Your task to perform on an android device: turn off javascript in the chrome app Image 0: 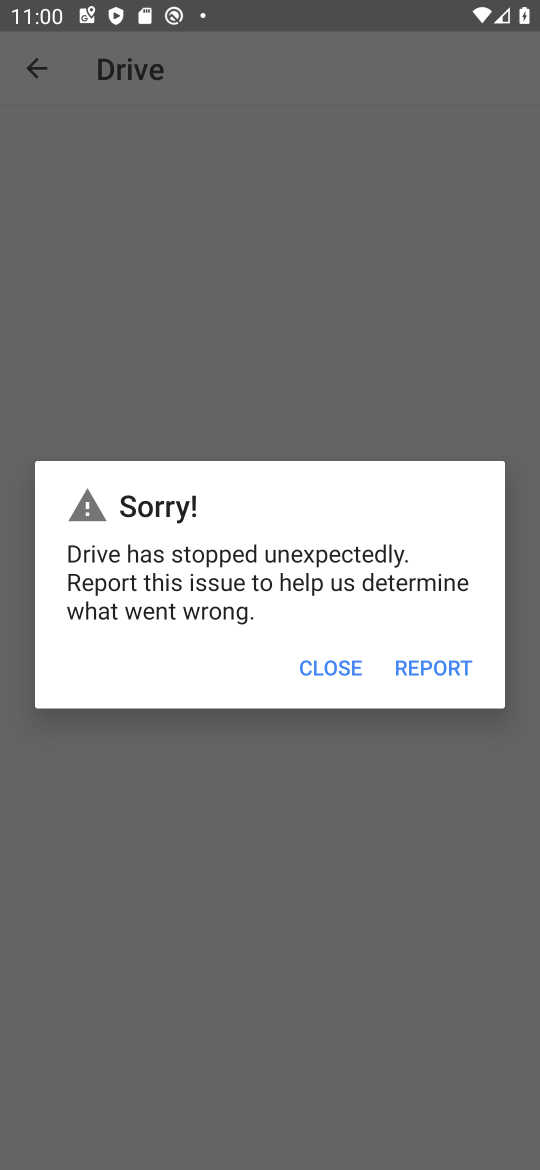
Step 0: press back button
Your task to perform on an android device: turn off javascript in the chrome app Image 1: 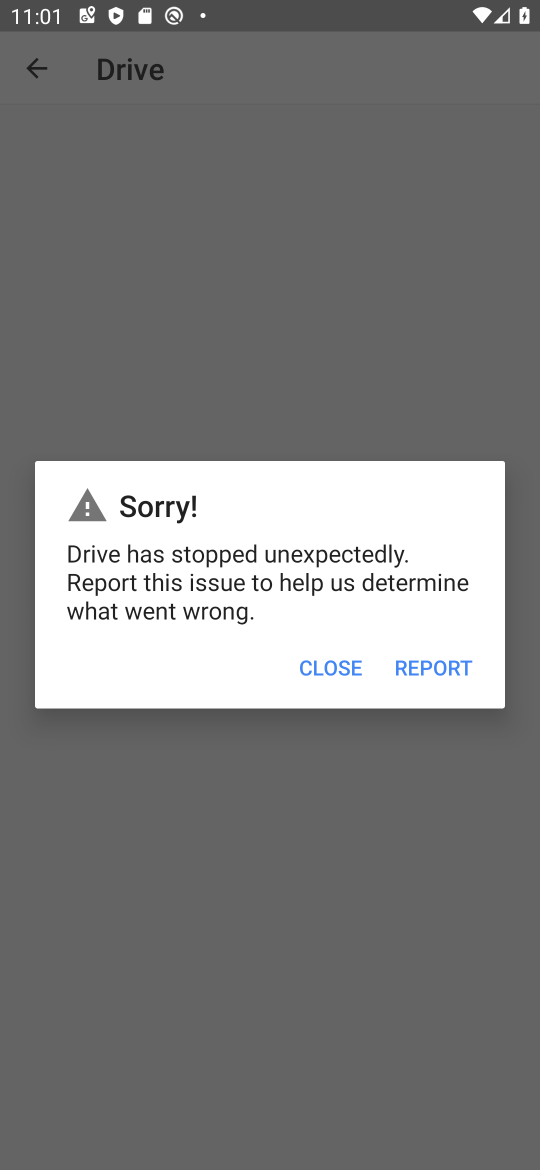
Step 1: press back button
Your task to perform on an android device: turn off javascript in the chrome app Image 2: 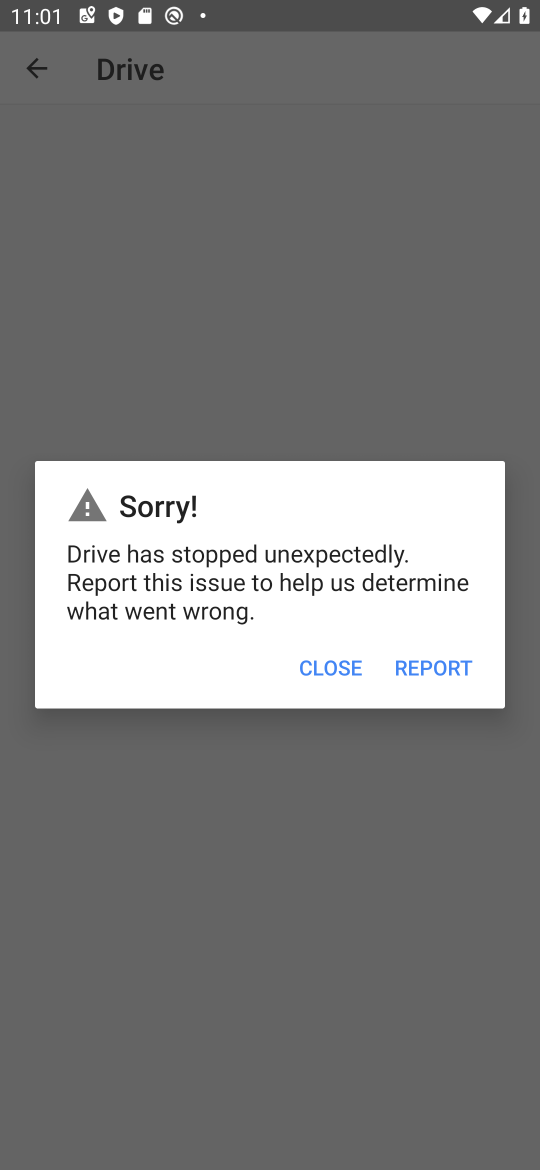
Step 2: press home button
Your task to perform on an android device: turn off javascript in the chrome app Image 3: 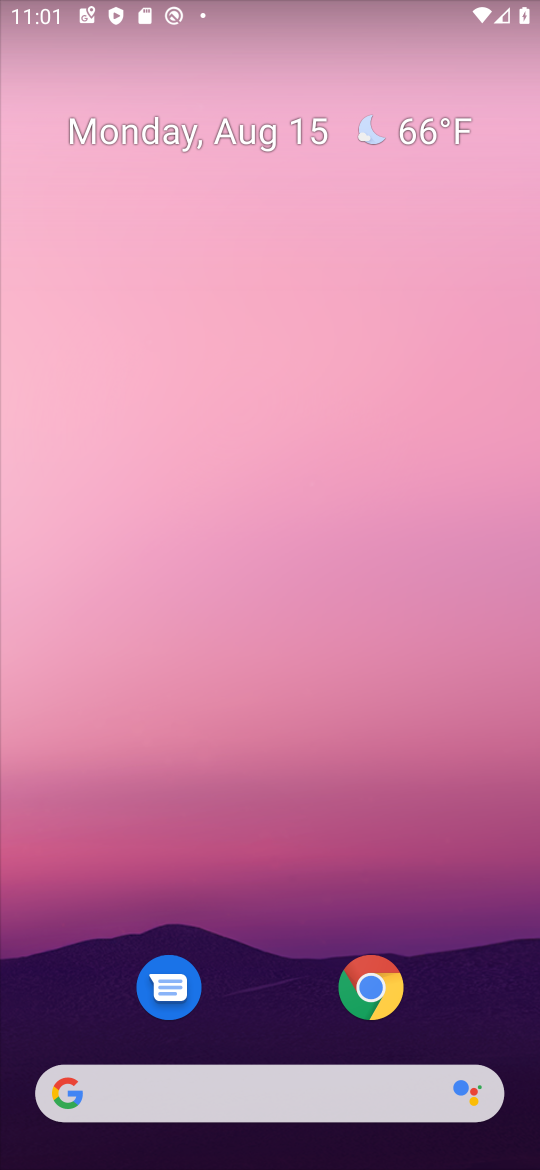
Step 3: click (371, 989)
Your task to perform on an android device: turn off javascript in the chrome app Image 4: 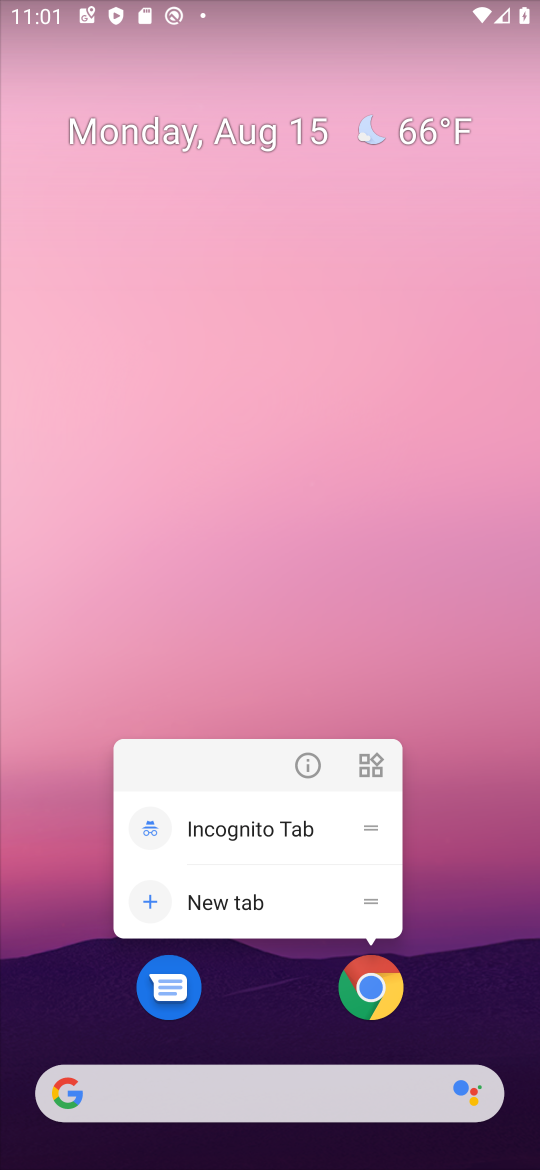
Step 4: click (377, 988)
Your task to perform on an android device: turn off javascript in the chrome app Image 5: 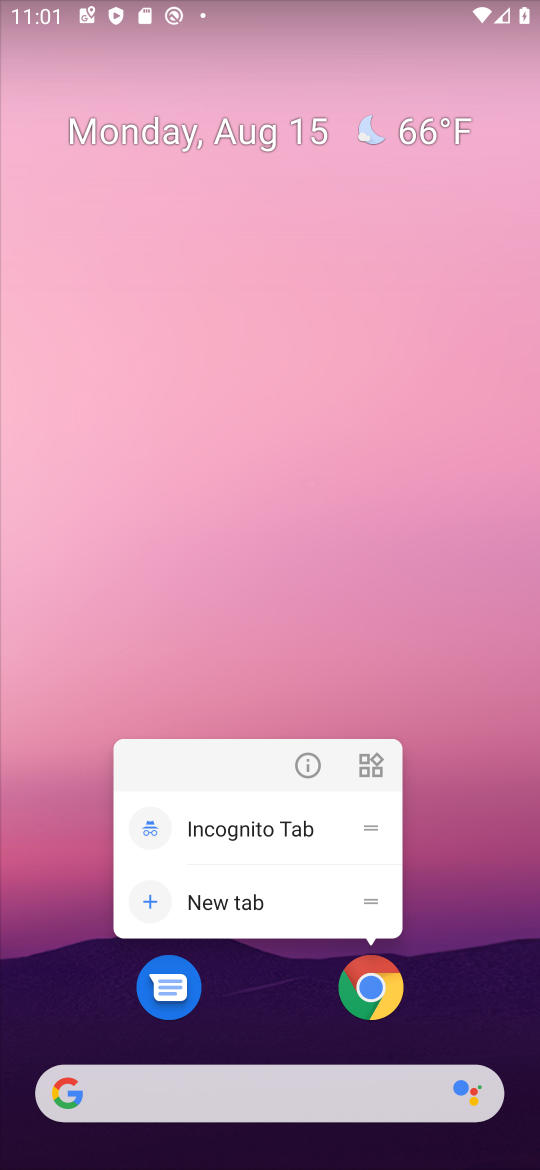
Step 5: click (373, 988)
Your task to perform on an android device: turn off javascript in the chrome app Image 6: 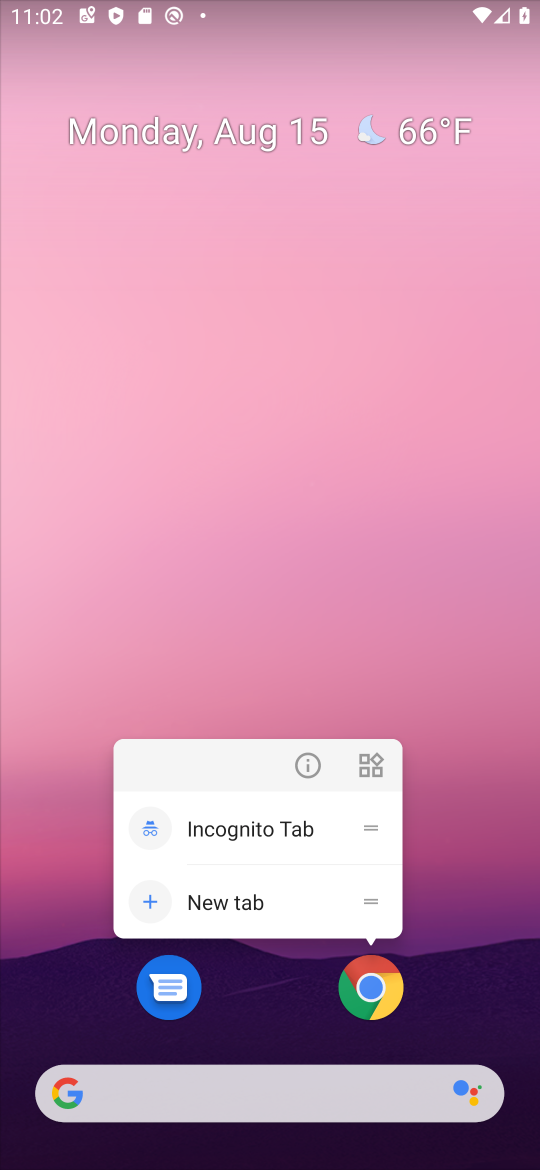
Step 6: click (351, 957)
Your task to perform on an android device: turn off javascript in the chrome app Image 7: 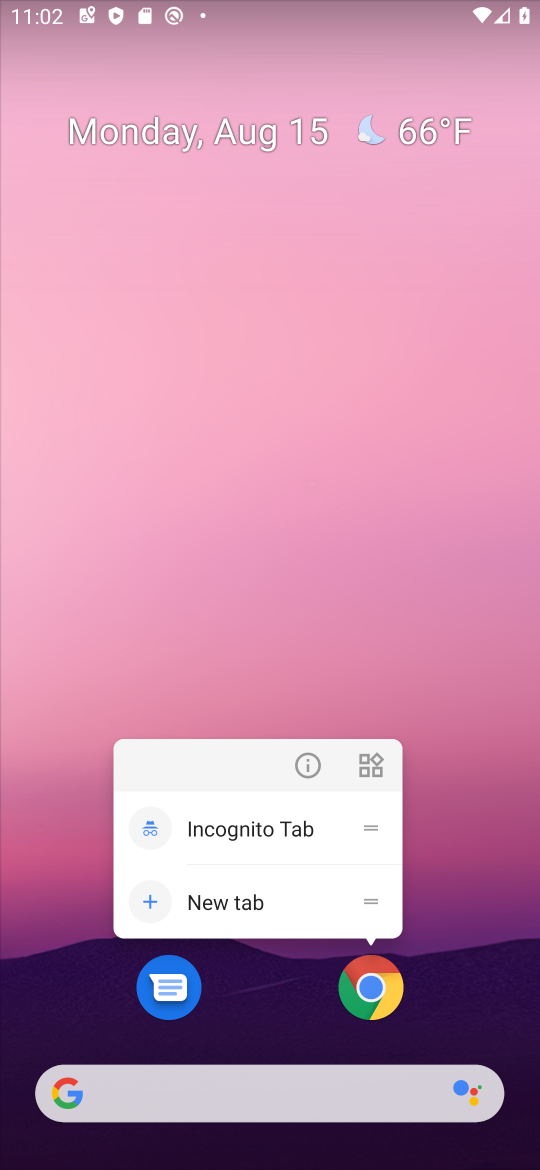
Step 7: click (395, 999)
Your task to perform on an android device: turn off javascript in the chrome app Image 8: 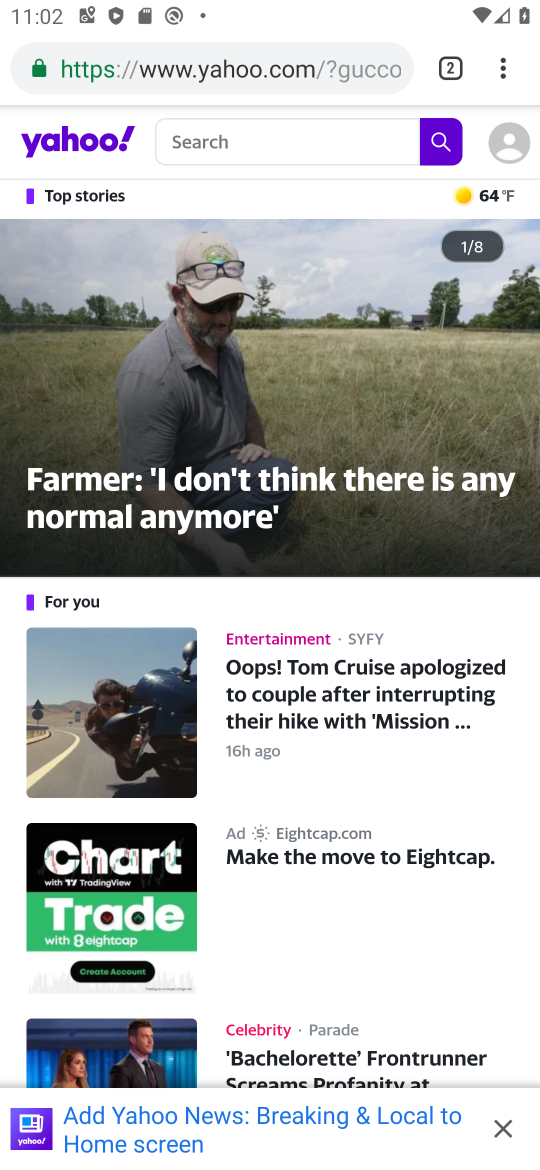
Step 8: drag from (492, 72) to (264, 906)
Your task to perform on an android device: turn off javascript in the chrome app Image 9: 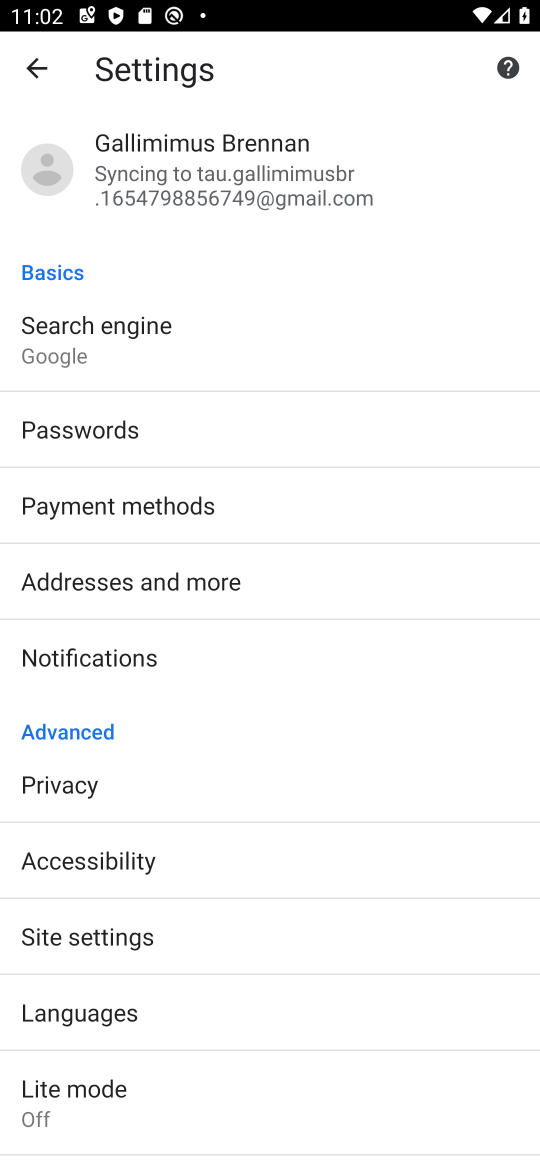
Step 9: click (113, 948)
Your task to perform on an android device: turn off javascript in the chrome app Image 10: 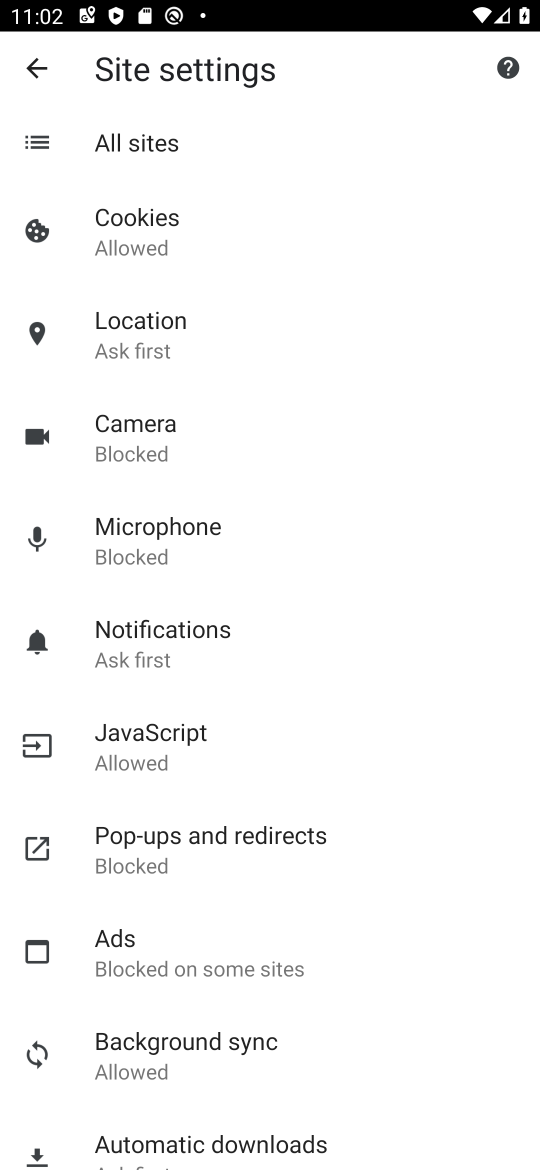
Step 10: click (147, 746)
Your task to perform on an android device: turn off javascript in the chrome app Image 11: 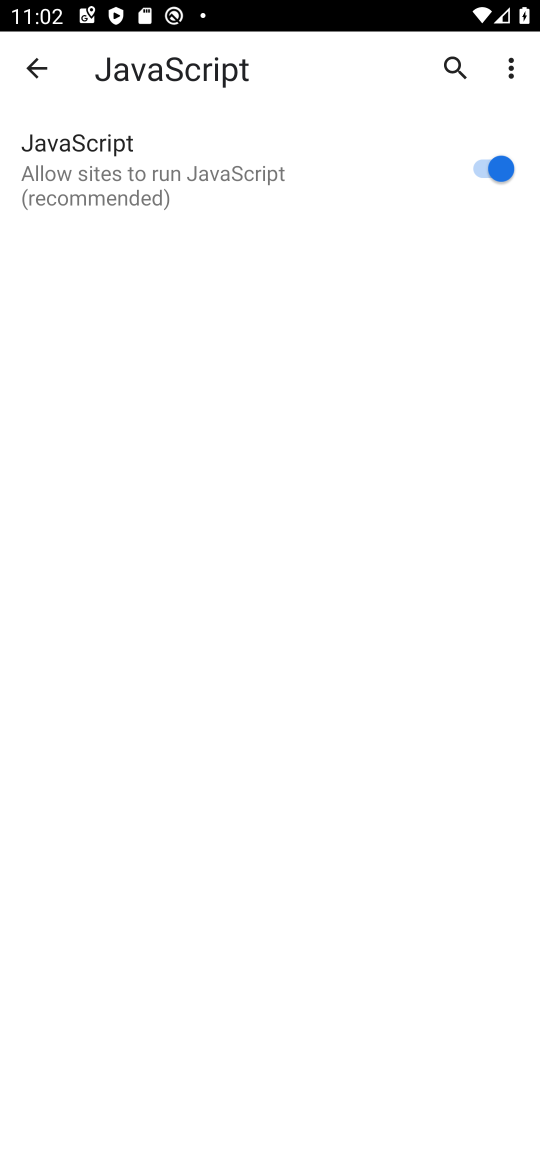
Step 11: click (473, 179)
Your task to perform on an android device: turn off javascript in the chrome app Image 12: 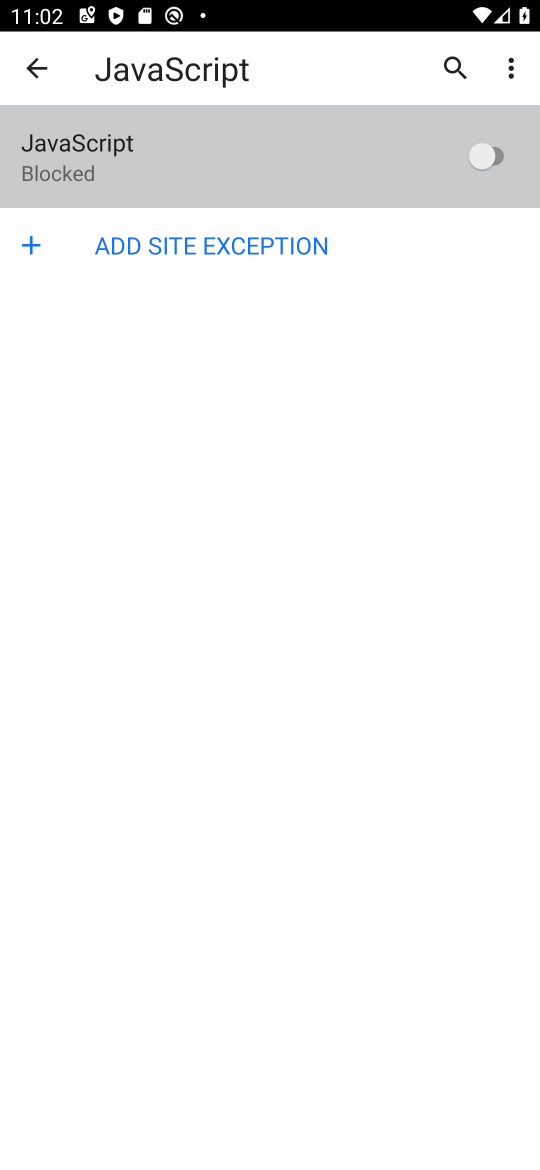
Step 12: task complete